Your task to perform on an android device: Show me recent news Image 0: 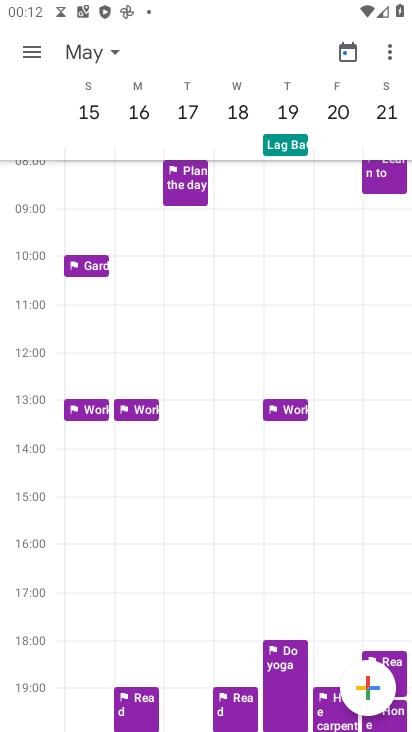
Step 0: press back button
Your task to perform on an android device: Show me recent news Image 1: 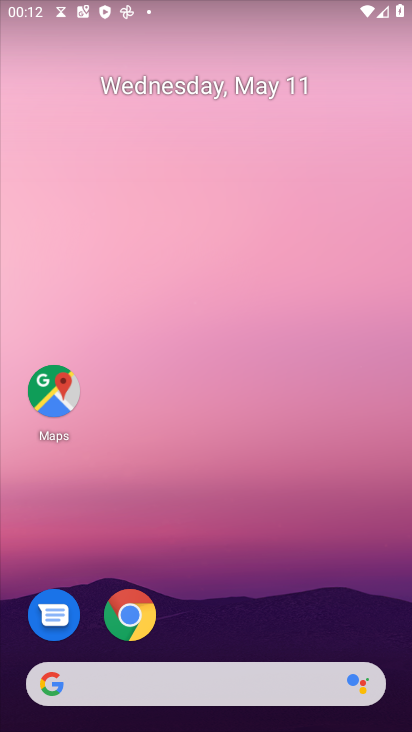
Step 1: click (131, 618)
Your task to perform on an android device: Show me recent news Image 2: 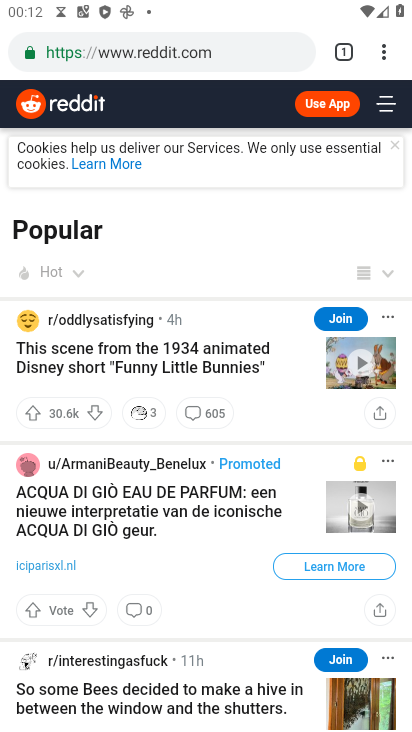
Step 2: click (260, 52)
Your task to perform on an android device: Show me recent news Image 3: 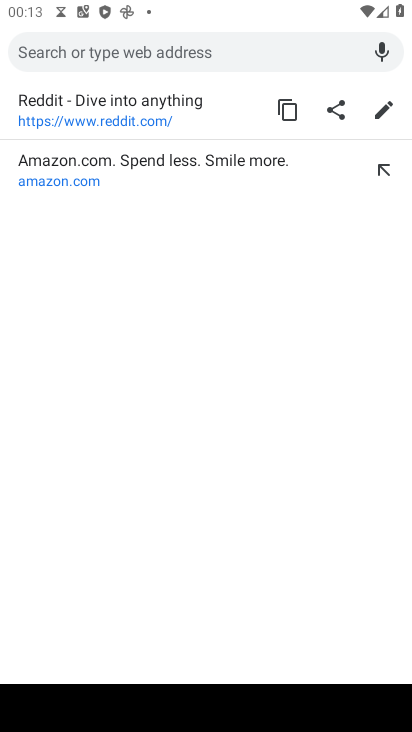
Step 3: type "recent news"
Your task to perform on an android device: Show me recent news Image 4: 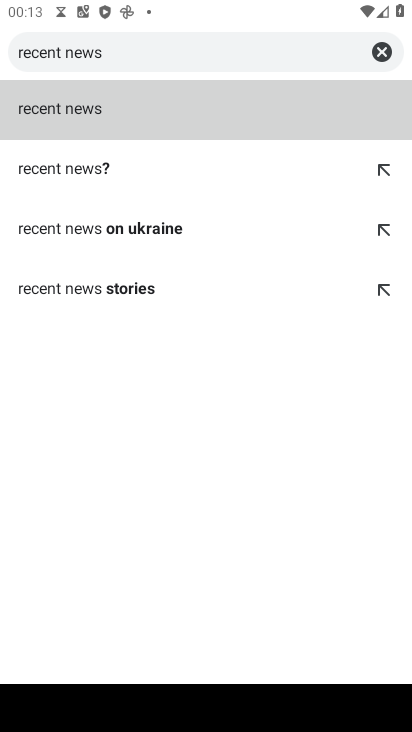
Step 4: click (88, 134)
Your task to perform on an android device: Show me recent news Image 5: 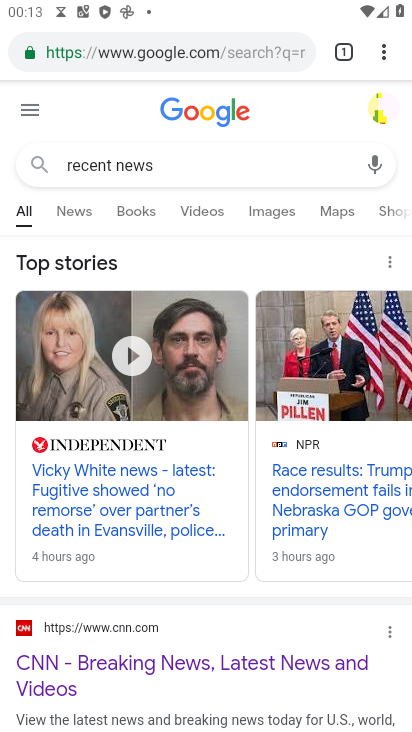
Step 5: task complete